Your task to perform on an android device: turn on improve location accuracy Image 0: 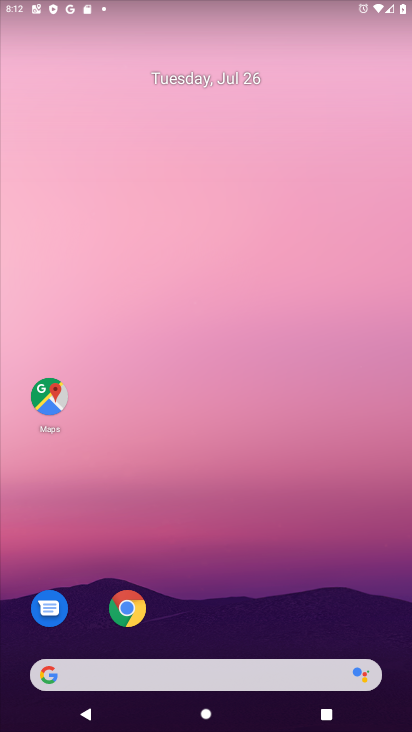
Step 0: drag from (218, 547) to (228, 374)
Your task to perform on an android device: turn on improve location accuracy Image 1: 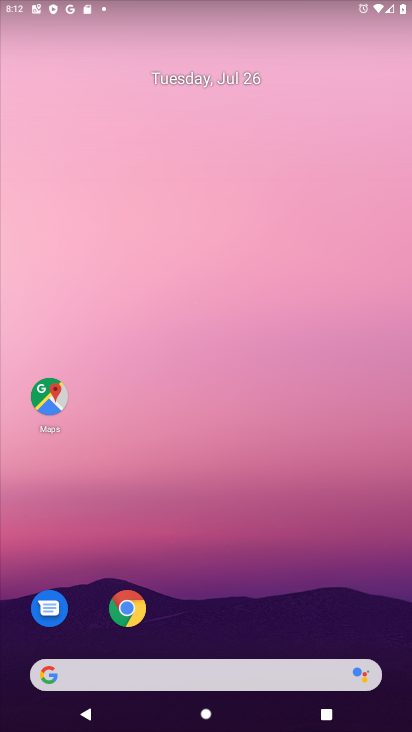
Step 1: drag from (203, 275) to (196, 215)
Your task to perform on an android device: turn on improve location accuracy Image 2: 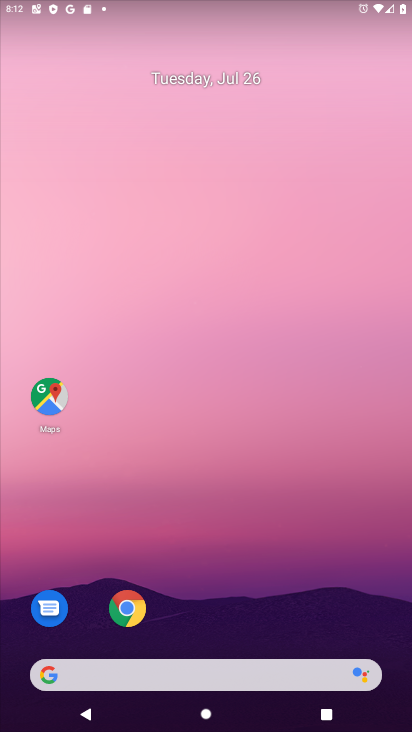
Step 2: drag from (229, 687) to (361, 335)
Your task to perform on an android device: turn on improve location accuracy Image 3: 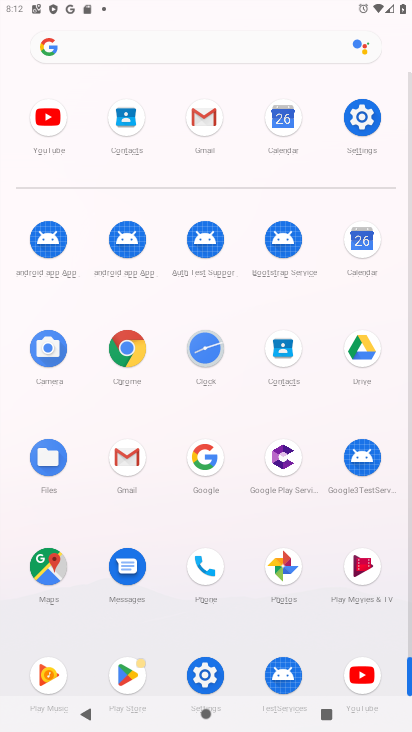
Step 3: drag from (225, 663) to (191, 413)
Your task to perform on an android device: turn on improve location accuracy Image 4: 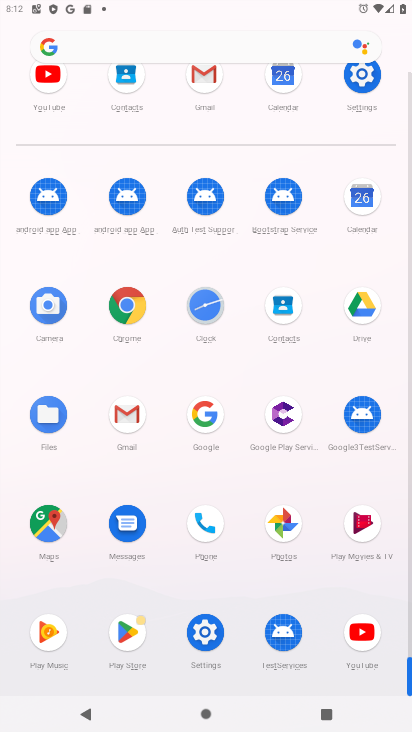
Step 4: click (207, 625)
Your task to perform on an android device: turn on improve location accuracy Image 5: 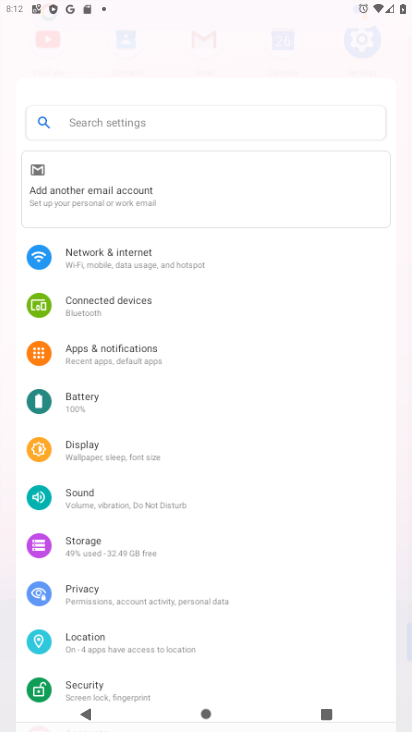
Step 5: click (208, 614)
Your task to perform on an android device: turn on improve location accuracy Image 6: 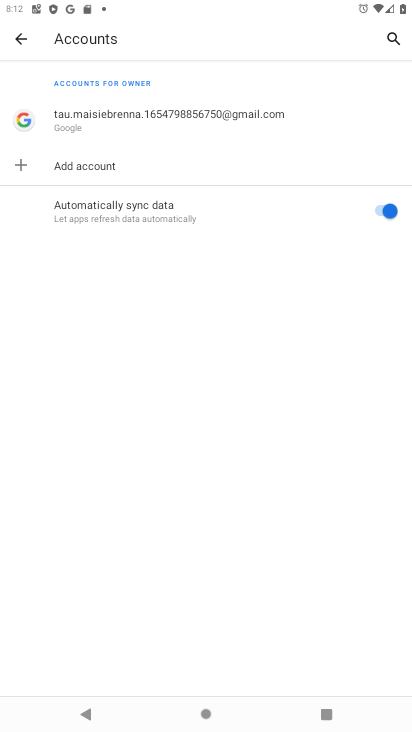
Step 6: click (20, 39)
Your task to perform on an android device: turn on improve location accuracy Image 7: 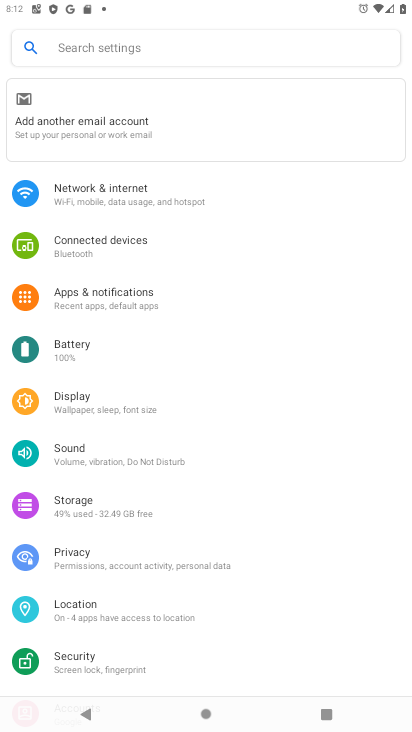
Step 7: click (92, 615)
Your task to perform on an android device: turn on improve location accuracy Image 8: 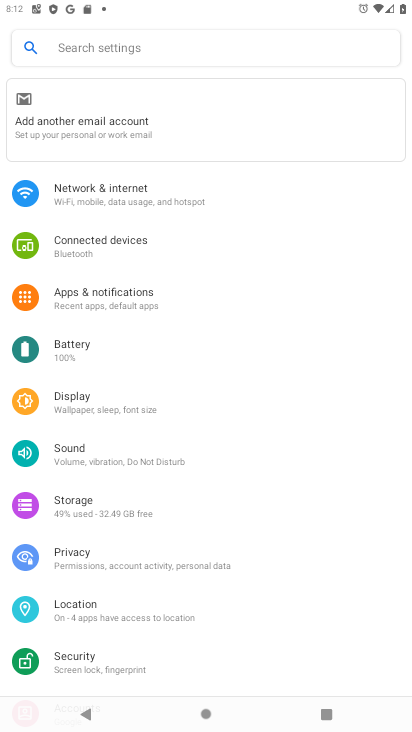
Step 8: click (92, 615)
Your task to perform on an android device: turn on improve location accuracy Image 9: 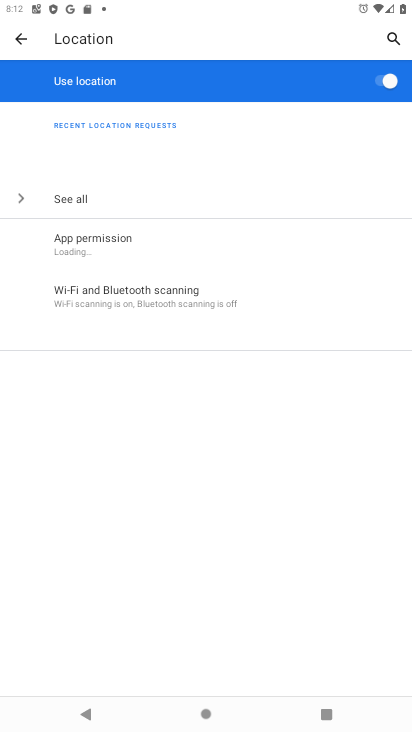
Step 9: click (92, 615)
Your task to perform on an android device: turn on improve location accuracy Image 10: 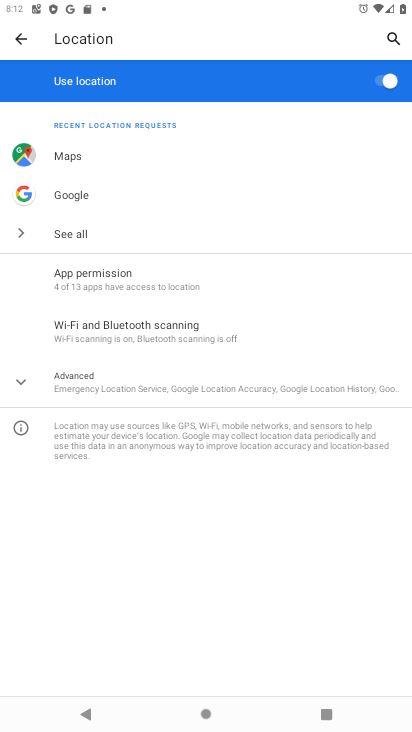
Step 10: click (85, 380)
Your task to perform on an android device: turn on improve location accuracy Image 11: 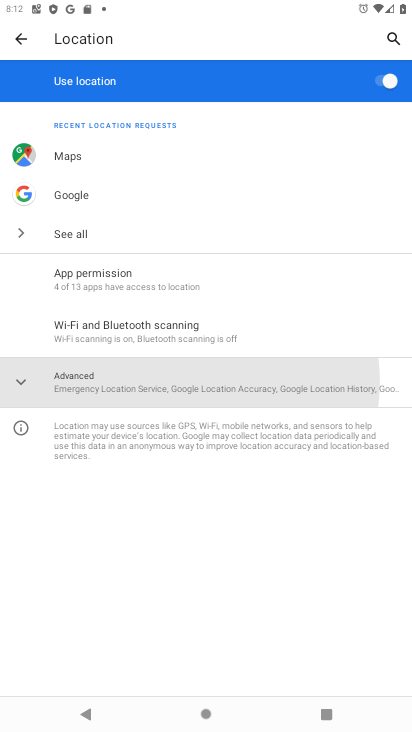
Step 11: click (85, 380)
Your task to perform on an android device: turn on improve location accuracy Image 12: 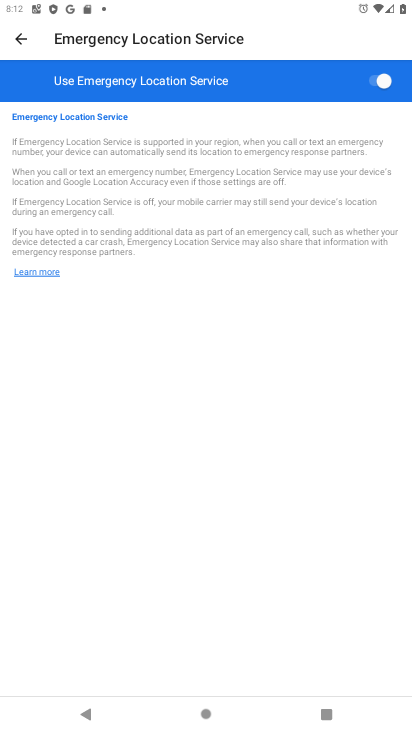
Step 12: click (12, 42)
Your task to perform on an android device: turn on improve location accuracy Image 13: 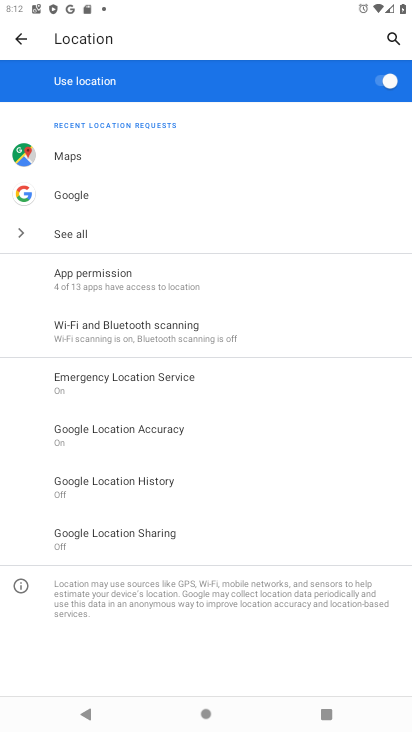
Step 13: click (150, 429)
Your task to perform on an android device: turn on improve location accuracy Image 14: 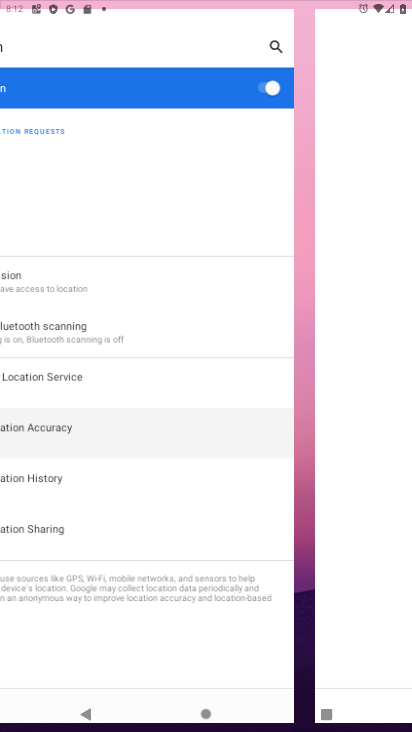
Step 14: click (150, 429)
Your task to perform on an android device: turn on improve location accuracy Image 15: 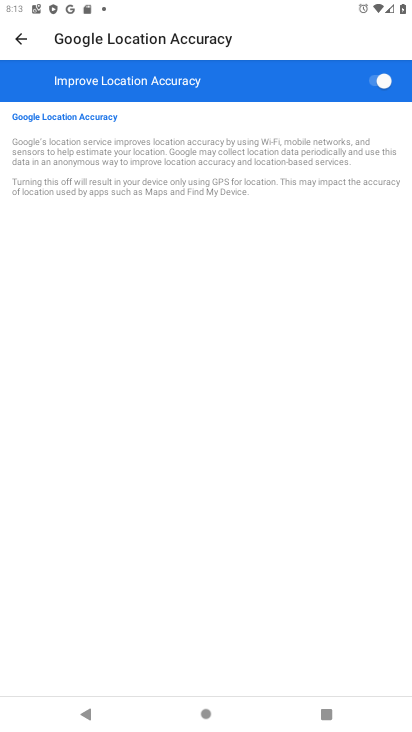
Step 15: task complete